Your task to perform on an android device: Open notification settings Image 0: 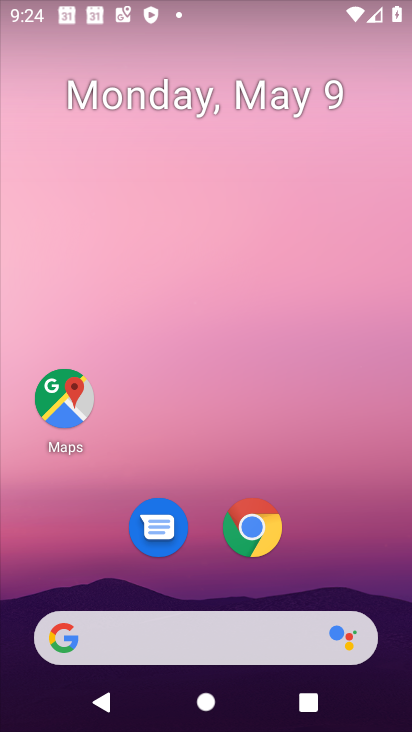
Step 0: drag from (188, 610) to (192, 262)
Your task to perform on an android device: Open notification settings Image 1: 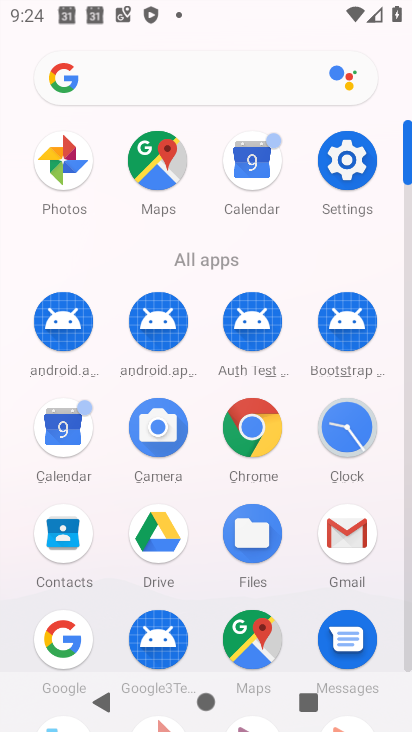
Step 1: click (341, 168)
Your task to perform on an android device: Open notification settings Image 2: 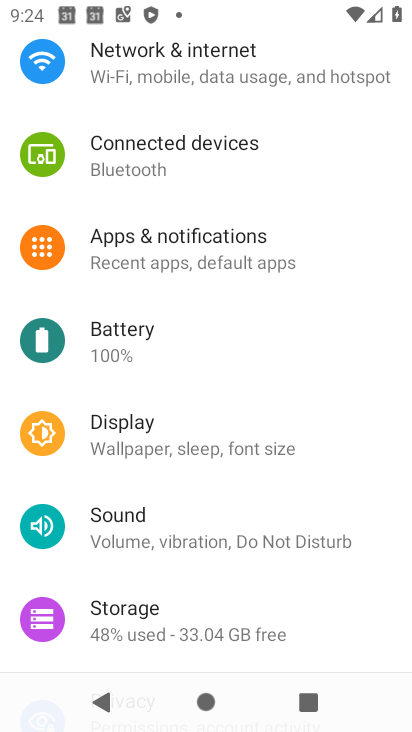
Step 2: click (181, 254)
Your task to perform on an android device: Open notification settings Image 3: 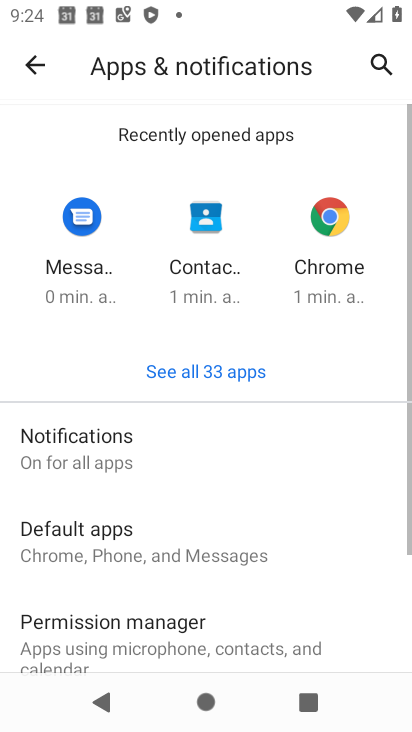
Step 3: drag from (164, 639) to (165, 251)
Your task to perform on an android device: Open notification settings Image 4: 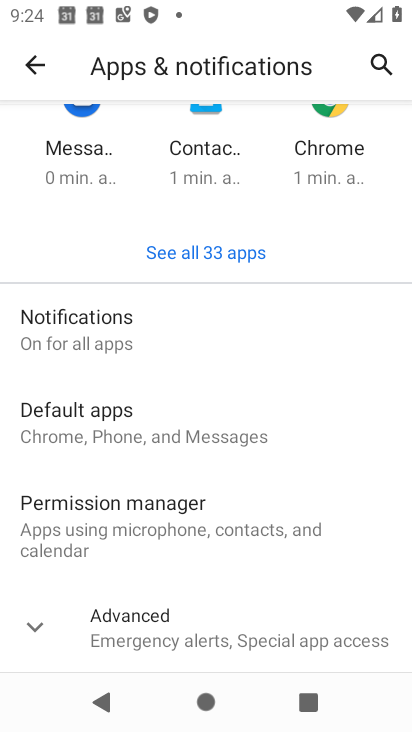
Step 4: click (157, 639)
Your task to perform on an android device: Open notification settings Image 5: 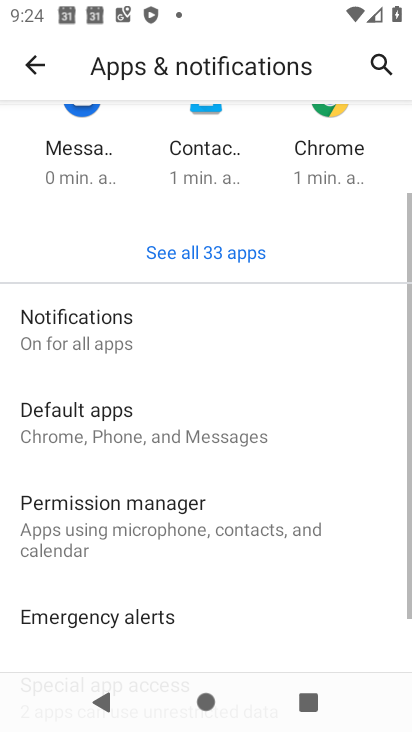
Step 5: task complete